Your task to perform on an android device: turn off improve location accuracy Image 0: 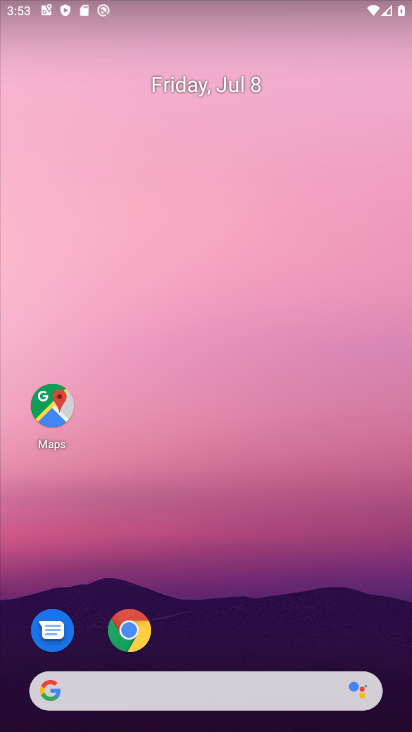
Step 0: drag from (244, 652) to (270, 94)
Your task to perform on an android device: turn off improve location accuracy Image 1: 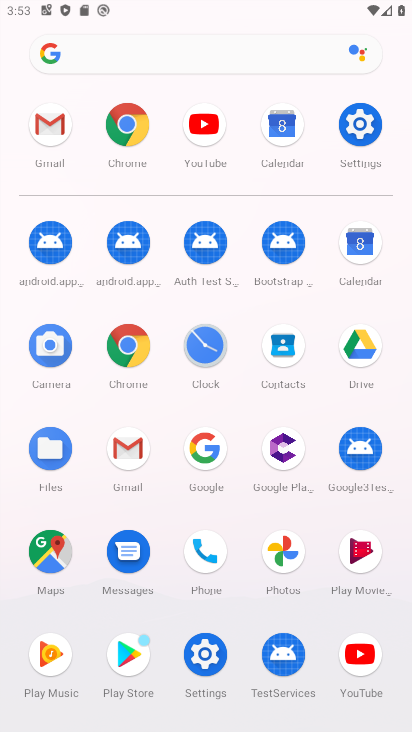
Step 1: click (361, 128)
Your task to perform on an android device: turn off improve location accuracy Image 2: 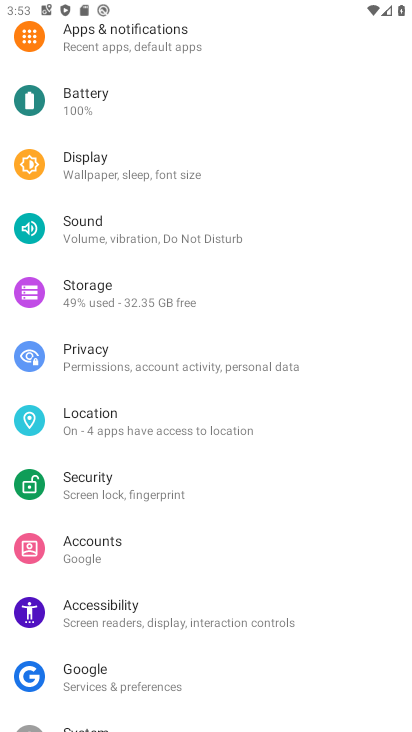
Step 2: click (185, 416)
Your task to perform on an android device: turn off improve location accuracy Image 3: 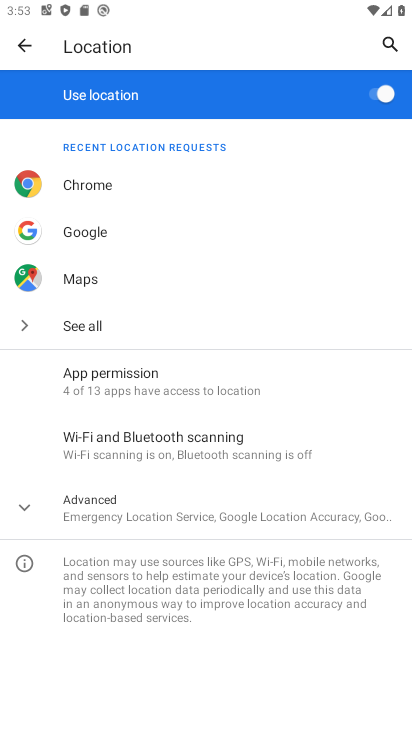
Step 3: click (214, 500)
Your task to perform on an android device: turn off improve location accuracy Image 4: 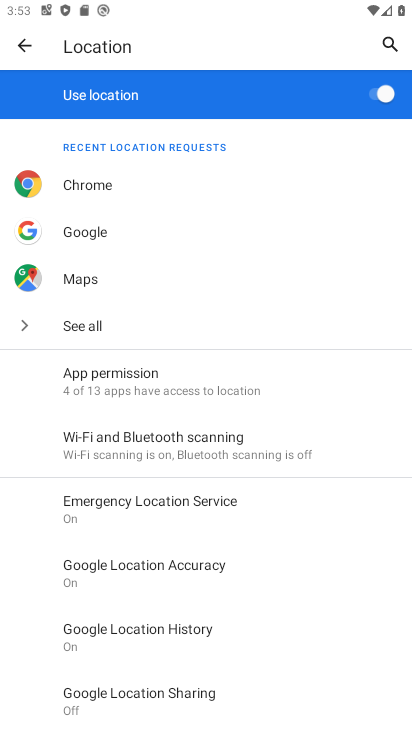
Step 4: click (234, 559)
Your task to perform on an android device: turn off improve location accuracy Image 5: 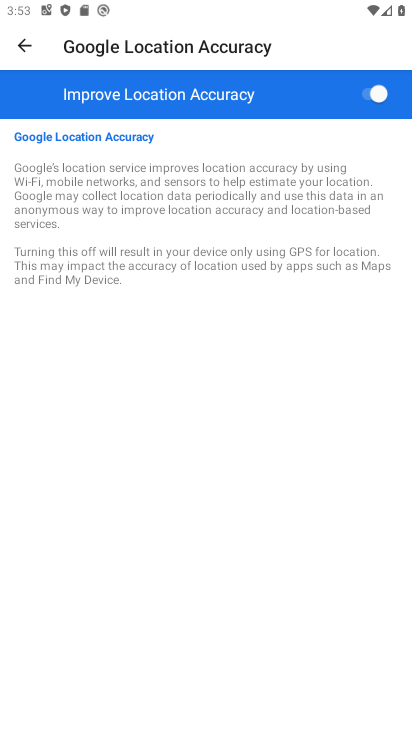
Step 5: click (364, 88)
Your task to perform on an android device: turn off improve location accuracy Image 6: 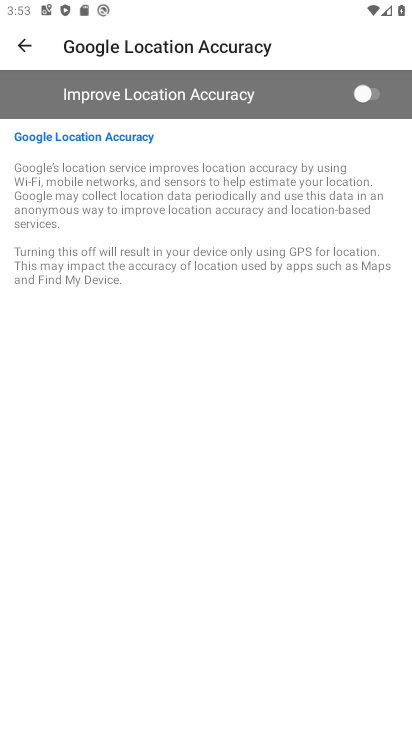
Step 6: press home button
Your task to perform on an android device: turn off improve location accuracy Image 7: 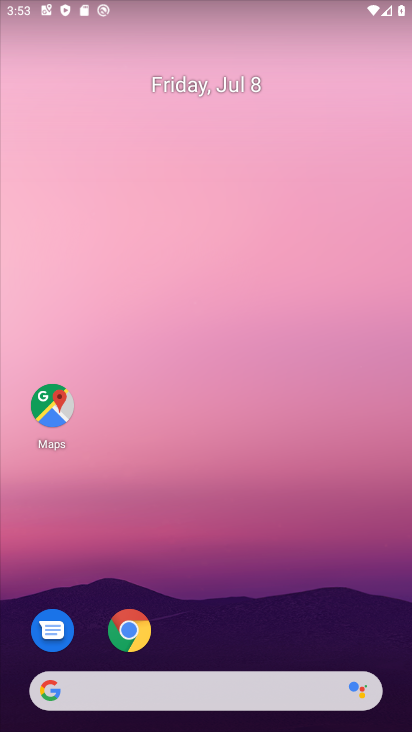
Step 7: drag from (272, 469) to (302, 128)
Your task to perform on an android device: turn off improve location accuracy Image 8: 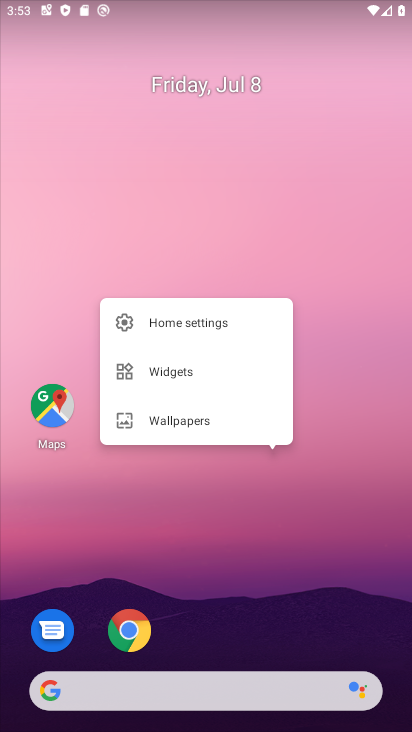
Step 8: click (313, 535)
Your task to perform on an android device: turn off improve location accuracy Image 9: 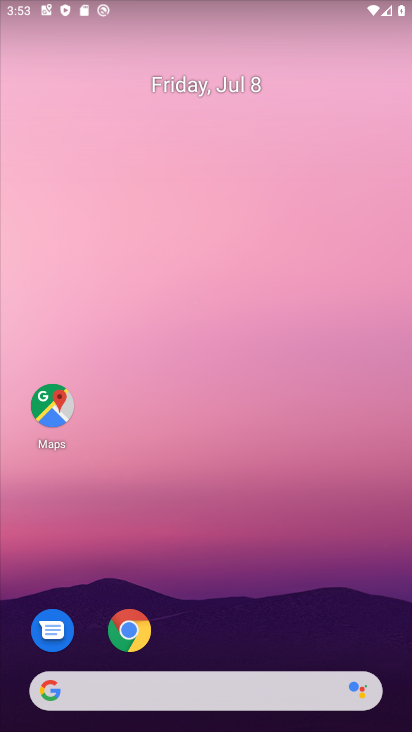
Step 9: drag from (270, 606) to (281, 73)
Your task to perform on an android device: turn off improve location accuracy Image 10: 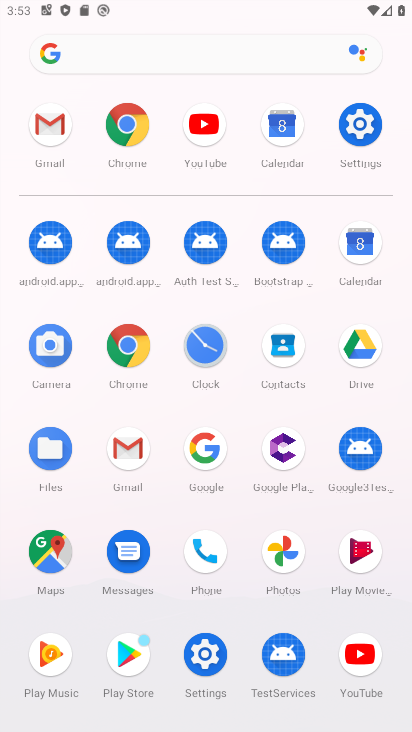
Step 10: click (349, 135)
Your task to perform on an android device: turn off improve location accuracy Image 11: 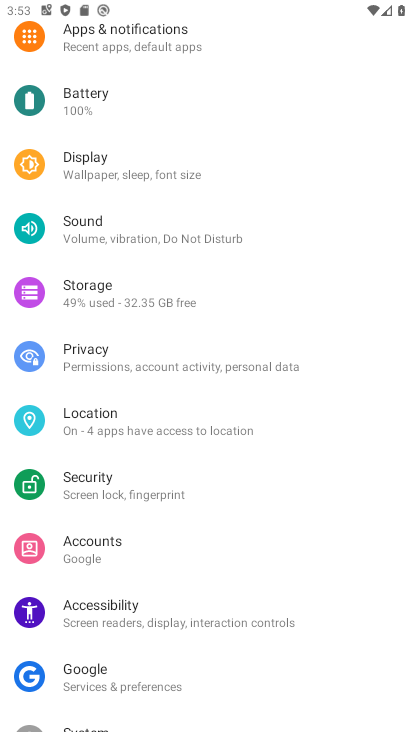
Step 11: click (215, 431)
Your task to perform on an android device: turn off improve location accuracy Image 12: 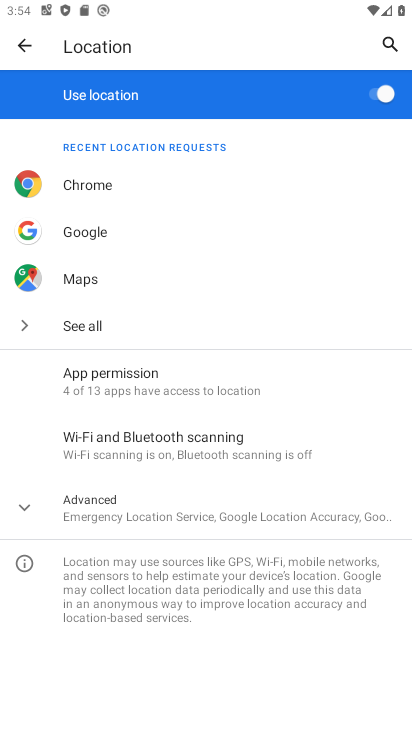
Step 12: click (187, 515)
Your task to perform on an android device: turn off improve location accuracy Image 13: 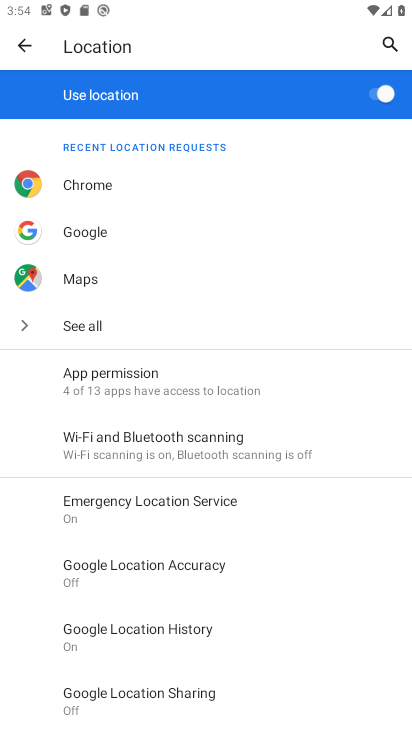
Step 13: click (243, 567)
Your task to perform on an android device: turn off improve location accuracy Image 14: 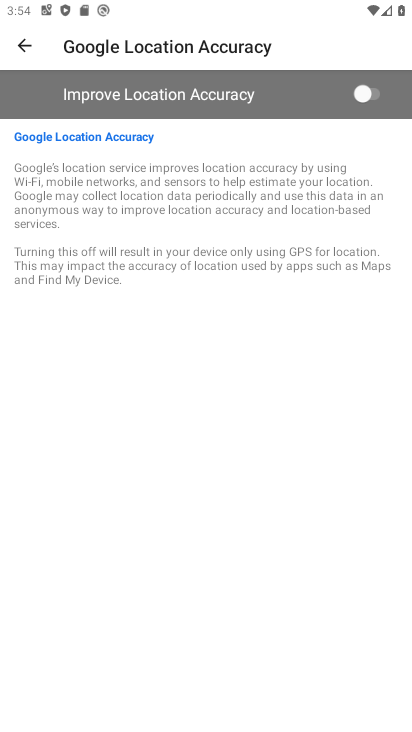
Step 14: task complete